Your task to perform on an android device: Go to Google Image 0: 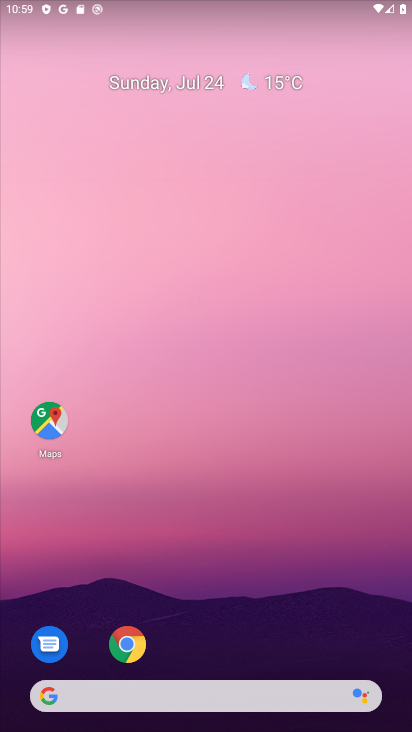
Step 0: drag from (221, 711) to (204, 105)
Your task to perform on an android device: Go to Google Image 1: 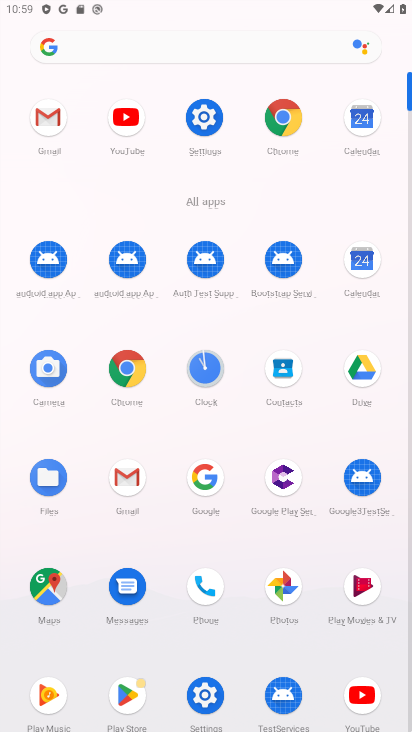
Step 1: click (207, 473)
Your task to perform on an android device: Go to Google Image 2: 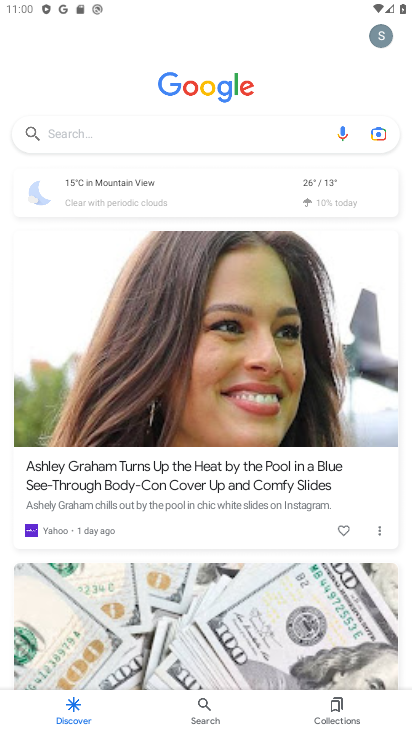
Step 2: task complete